Your task to perform on an android device: Open settings Image 0: 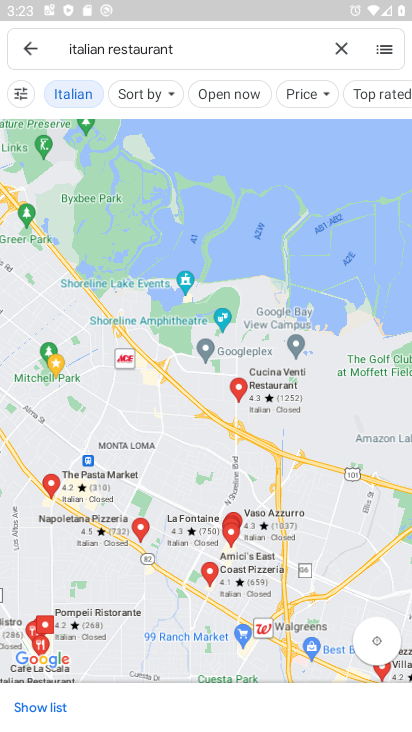
Step 0: press home button
Your task to perform on an android device: Open settings Image 1: 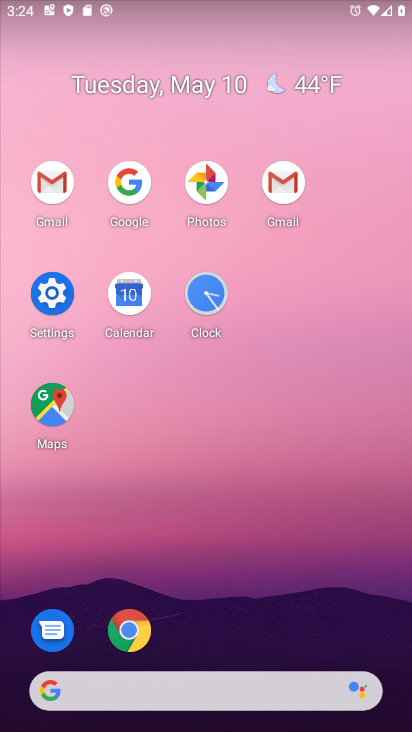
Step 1: click (53, 287)
Your task to perform on an android device: Open settings Image 2: 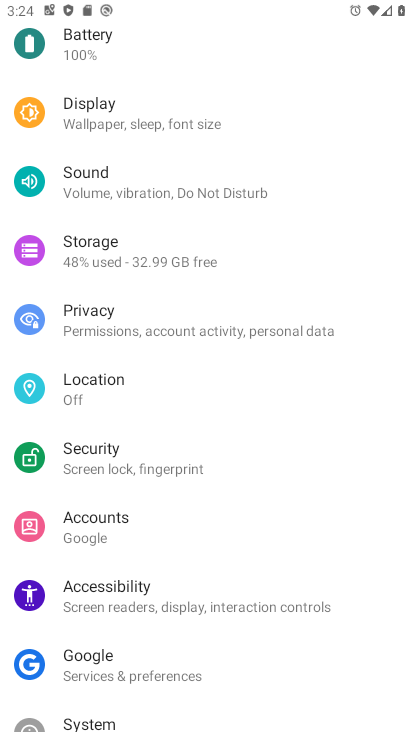
Step 2: task complete